Your task to perform on an android device: Open Android settings Image 0: 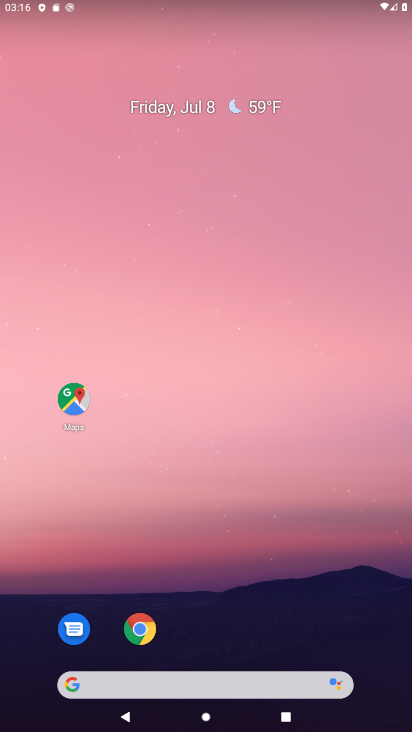
Step 0: press home button
Your task to perform on an android device: Open Android settings Image 1: 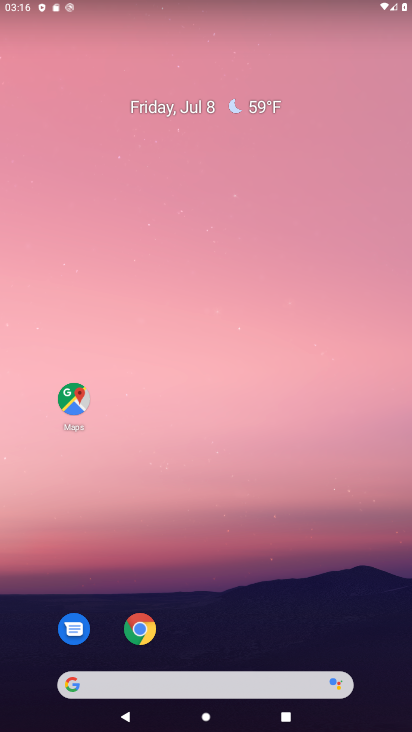
Step 1: drag from (222, 642) to (307, 23)
Your task to perform on an android device: Open Android settings Image 2: 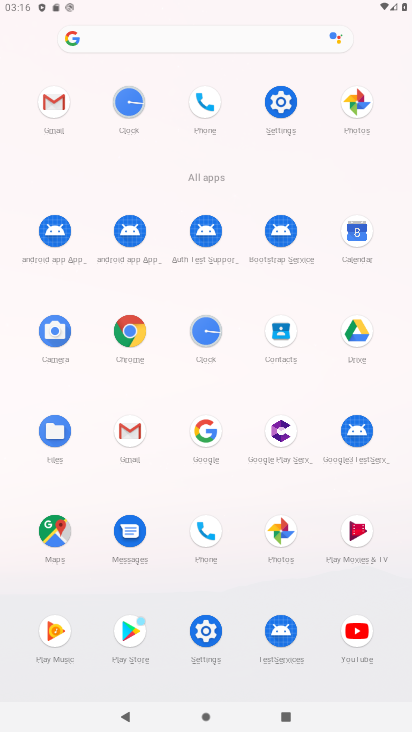
Step 2: click (276, 104)
Your task to perform on an android device: Open Android settings Image 3: 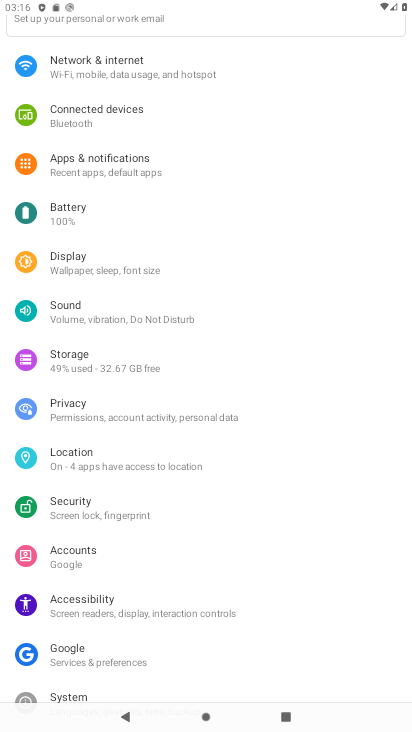
Step 3: drag from (119, 656) to (134, 210)
Your task to perform on an android device: Open Android settings Image 4: 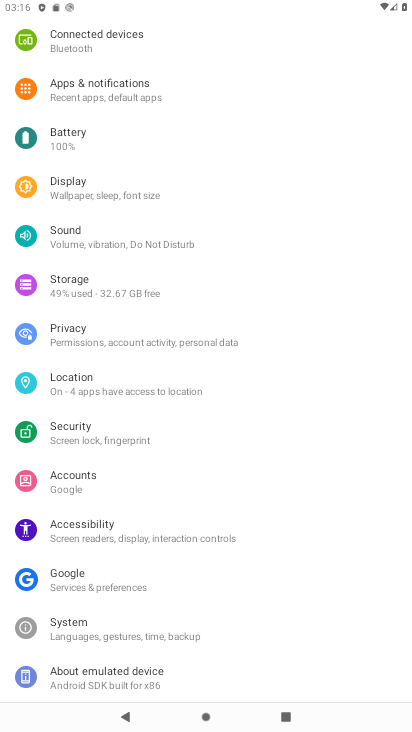
Step 4: click (157, 675)
Your task to perform on an android device: Open Android settings Image 5: 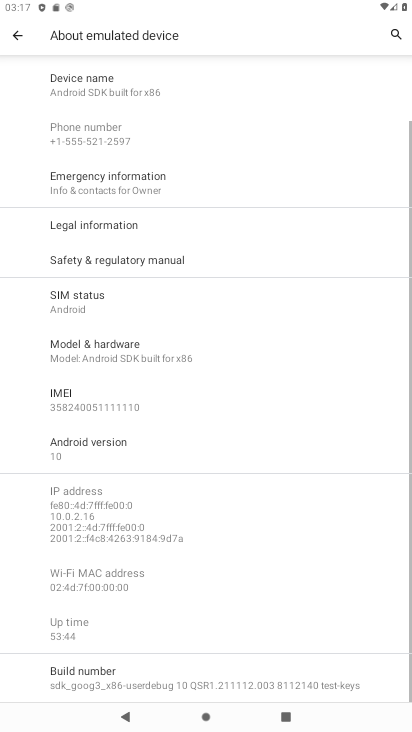
Step 5: click (138, 452)
Your task to perform on an android device: Open Android settings Image 6: 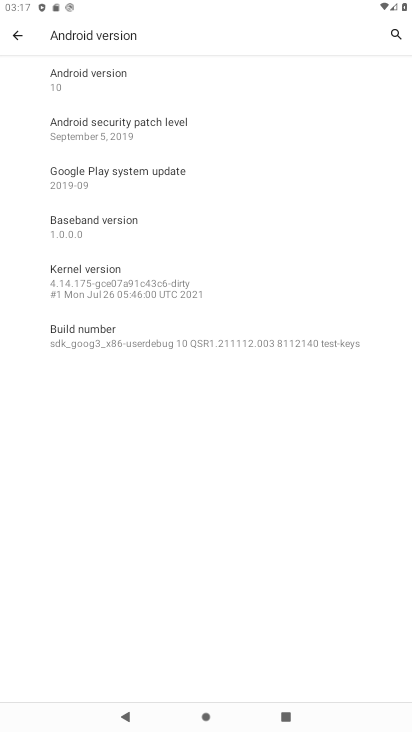
Step 6: task complete